Your task to perform on an android device: Toggle the flashlight Image 0: 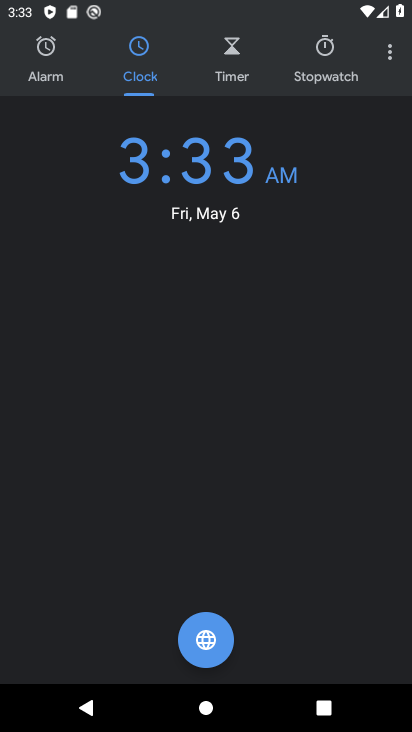
Step 0: press home button
Your task to perform on an android device: Toggle the flashlight Image 1: 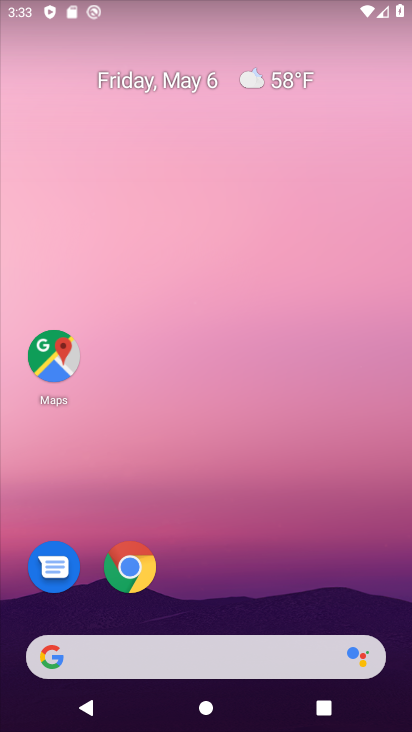
Step 1: task complete